Your task to perform on an android device: Open calendar and show me the first week of next month Image 0: 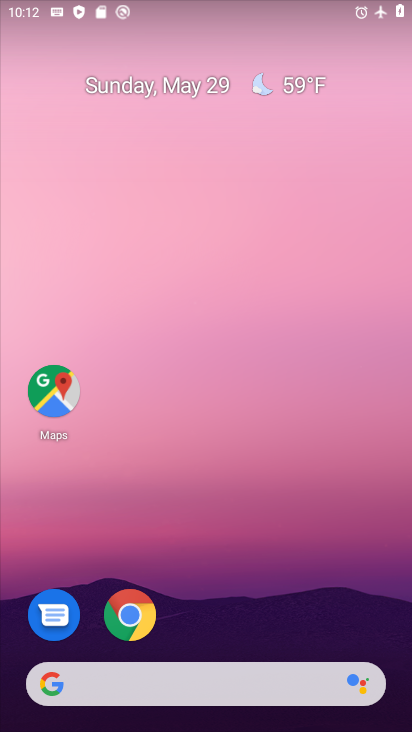
Step 0: drag from (233, 490) to (220, 62)
Your task to perform on an android device: Open calendar and show me the first week of next month Image 1: 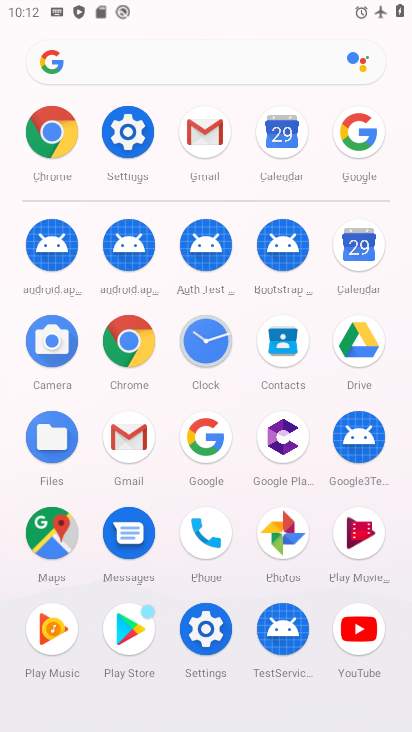
Step 1: click (277, 128)
Your task to perform on an android device: Open calendar and show me the first week of next month Image 2: 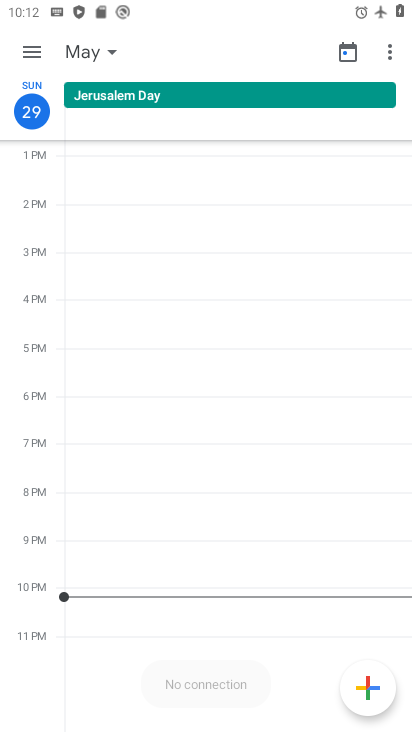
Step 2: click (112, 53)
Your task to perform on an android device: Open calendar and show me the first week of next month Image 3: 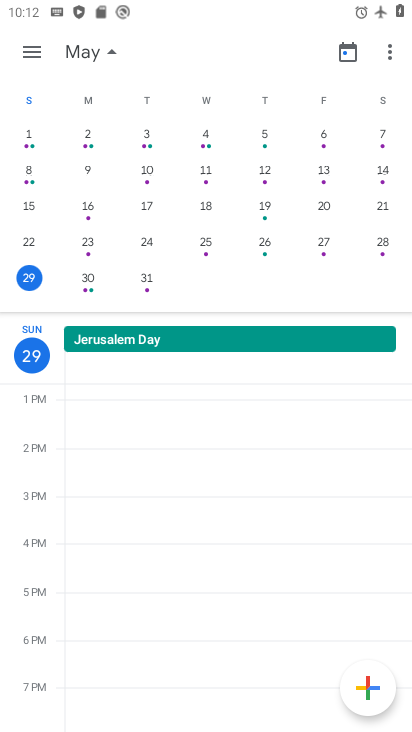
Step 3: task complete